Your task to perform on an android device: Open Google Chrome and click the shortcut for Amazon.com Image 0: 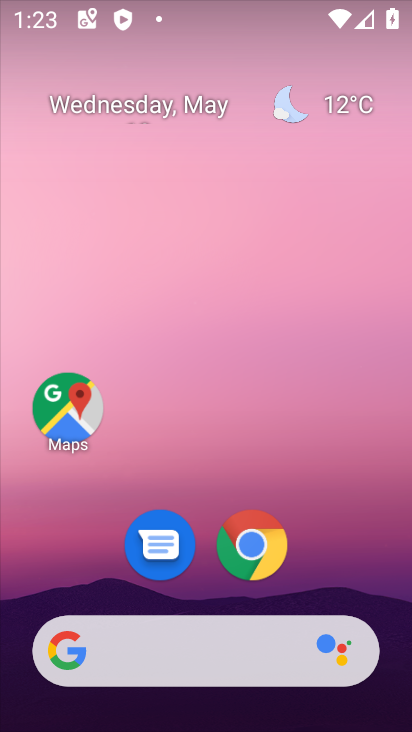
Step 0: click (249, 533)
Your task to perform on an android device: Open Google Chrome and click the shortcut for Amazon.com Image 1: 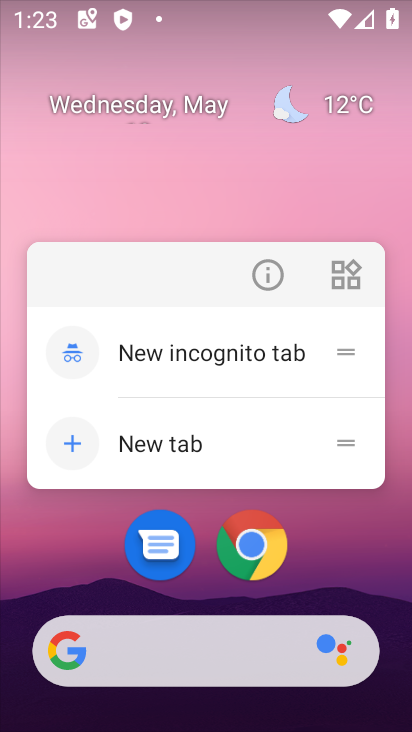
Step 1: click (249, 532)
Your task to perform on an android device: Open Google Chrome and click the shortcut for Amazon.com Image 2: 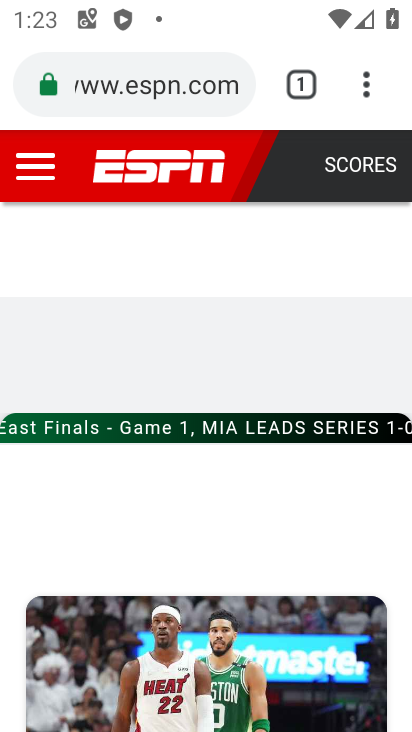
Step 2: click (307, 79)
Your task to perform on an android device: Open Google Chrome and click the shortcut for Amazon.com Image 3: 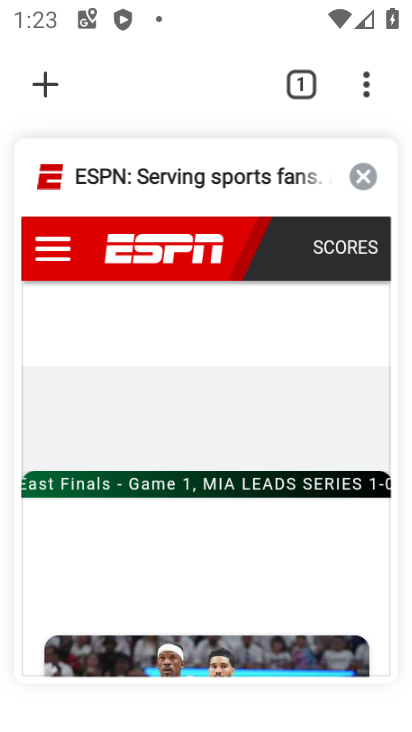
Step 3: click (361, 167)
Your task to perform on an android device: Open Google Chrome and click the shortcut for Amazon.com Image 4: 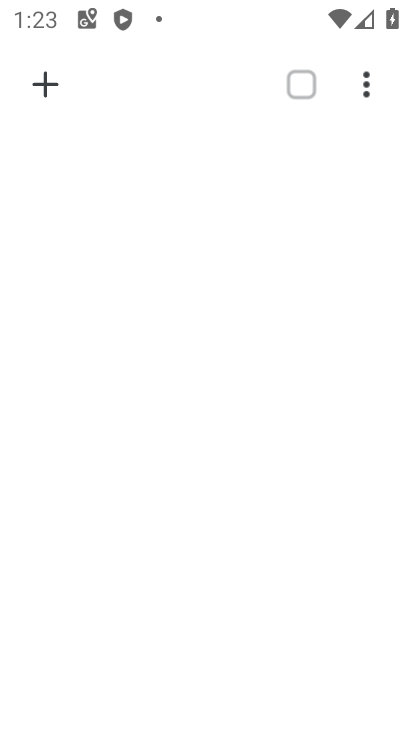
Step 4: click (47, 82)
Your task to perform on an android device: Open Google Chrome and click the shortcut for Amazon.com Image 5: 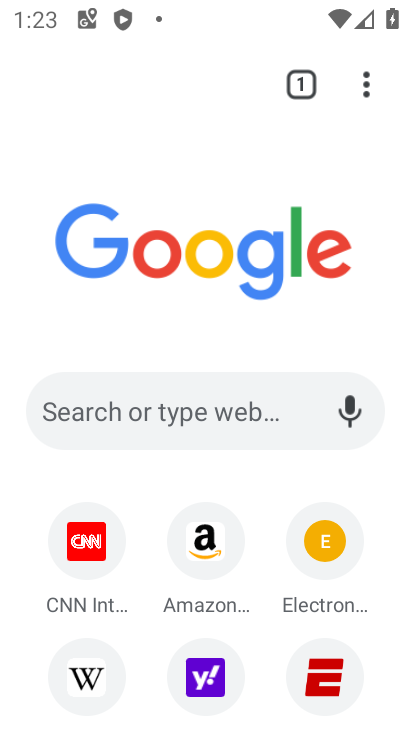
Step 5: click (211, 536)
Your task to perform on an android device: Open Google Chrome and click the shortcut for Amazon.com Image 6: 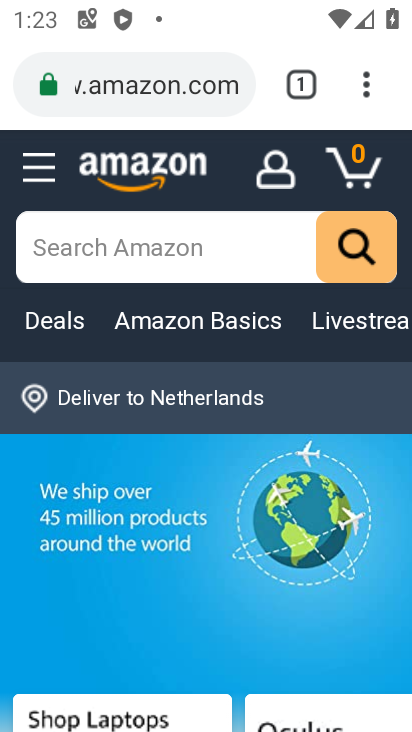
Step 6: task complete